Your task to perform on an android device: toggle translation in the chrome app Image 0: 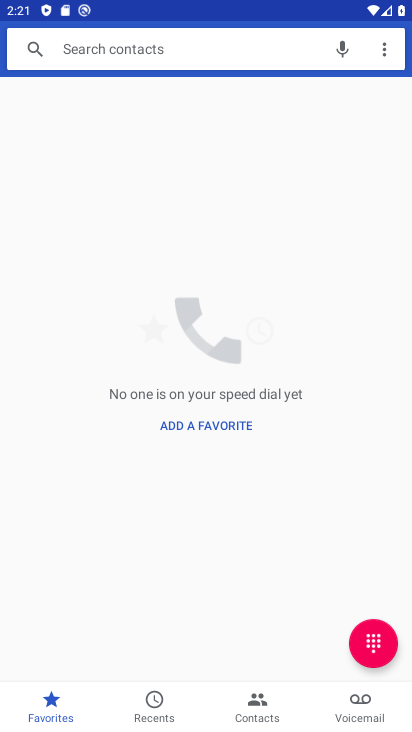
Step 0: press home button
Your task to perform on an android device: toggle translation in the chrome app Image 1: 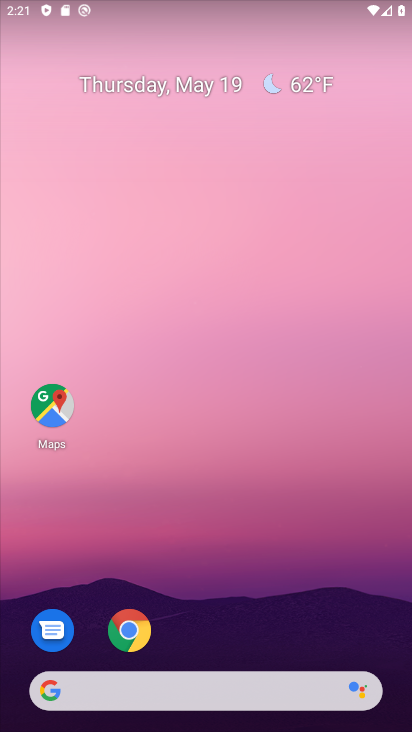
Step 1: drag from (360, 648) to (308, 199)
Your task to perform on an android device: toggle translation in the chrome app Image 2: 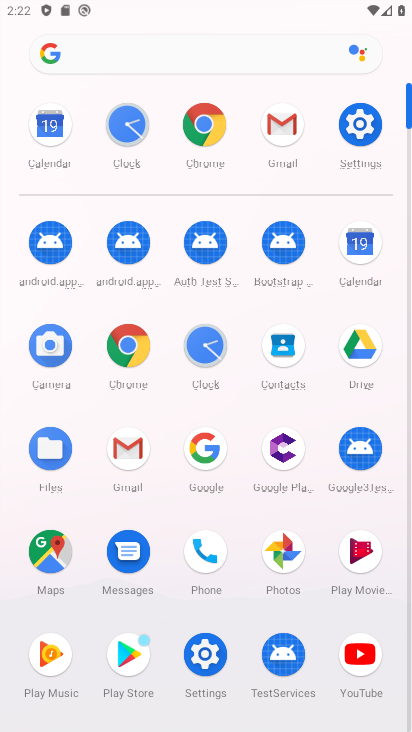
Step 2: click (133, 341)
Your task to perform on an android device: toggle translation in the chrome app Image 3: 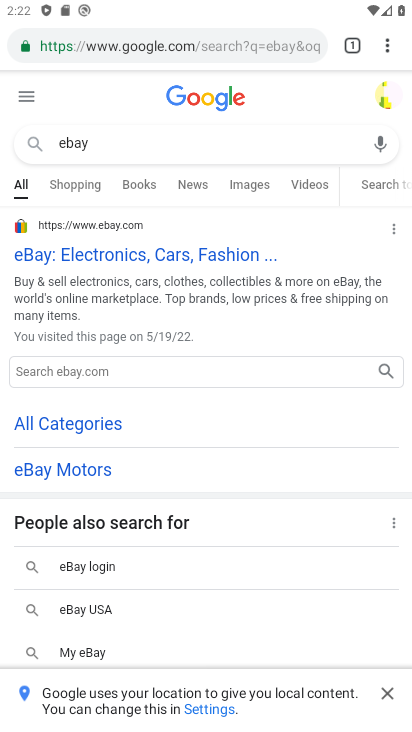
Step 3: drag from (391, 52) to (275, 560)
Your task to perform on an android device: toggle translation in the chrome app Image 4: 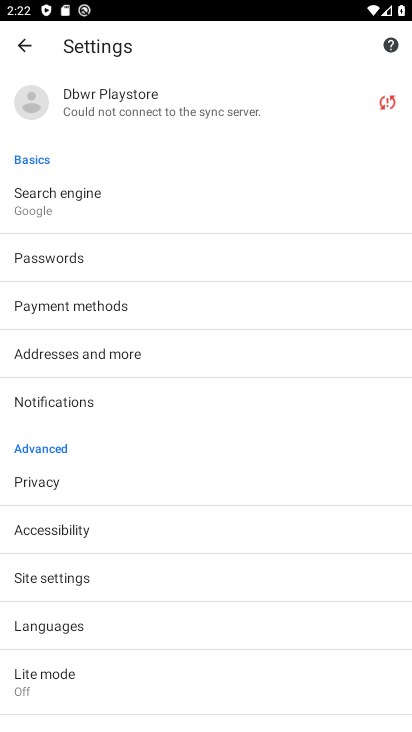
Step 4: drag from (234, 701) to (262, 420)
Your task to perform on an android device: toggle translation in the chrome app Image 5: 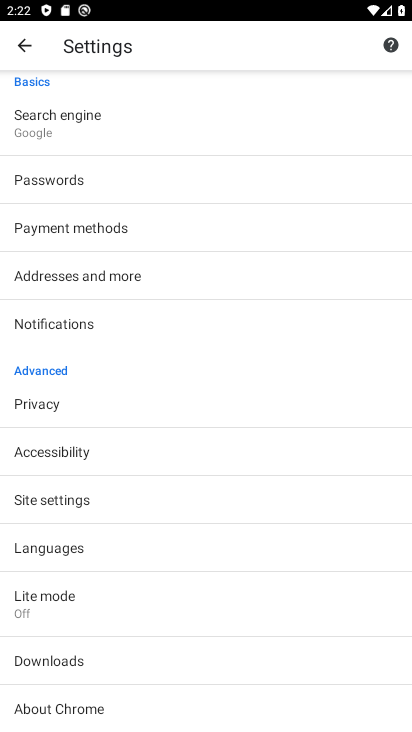
Step 5: click (135, 550)
Your task to perform on an android device: toggle translation in the chrome app Image 6: 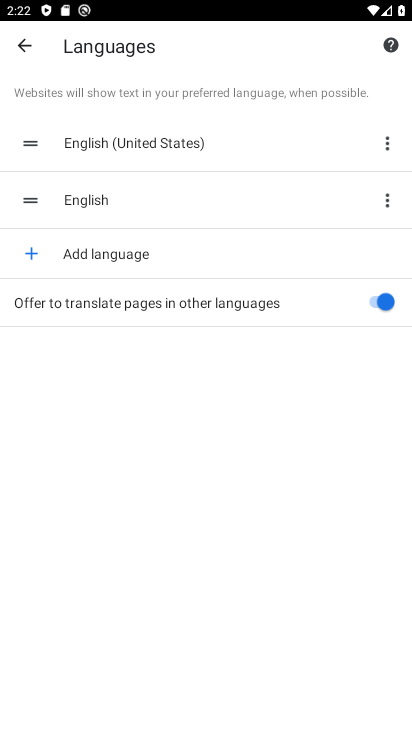
Step 6: click (369, 302)
Your task to perform on an android device: toggle translation in the chrome app Image 7: 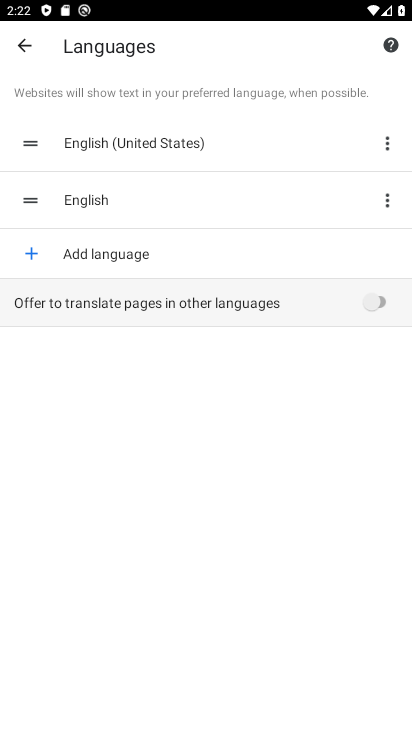
Step 7: task complete